Your task to perform on an android device: Go to Reddit.com Image 0: 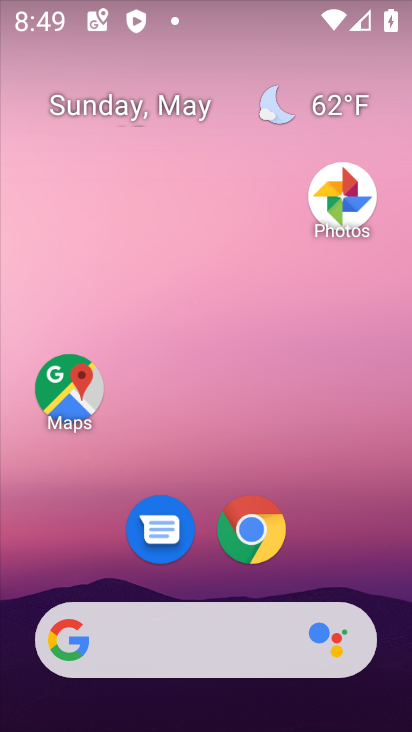
Step 0: drag from (322, 561) to (292, 102)
Your task to perform on an android device: Go to Reddit.com Image 1: 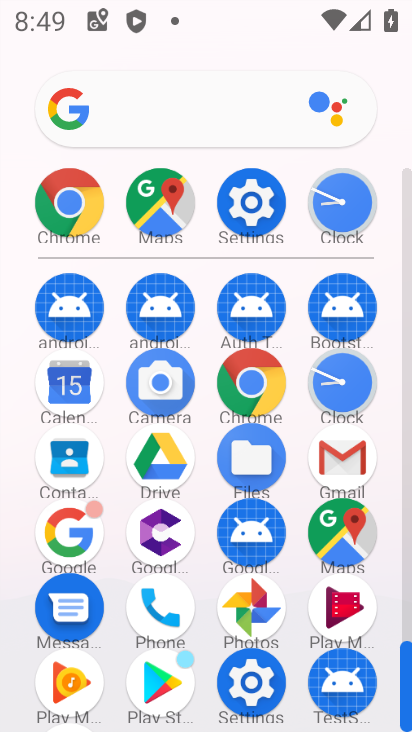
Step 1: click (267, 402)
Your task to perform on an android device: Go to Reddit.com Image 2: 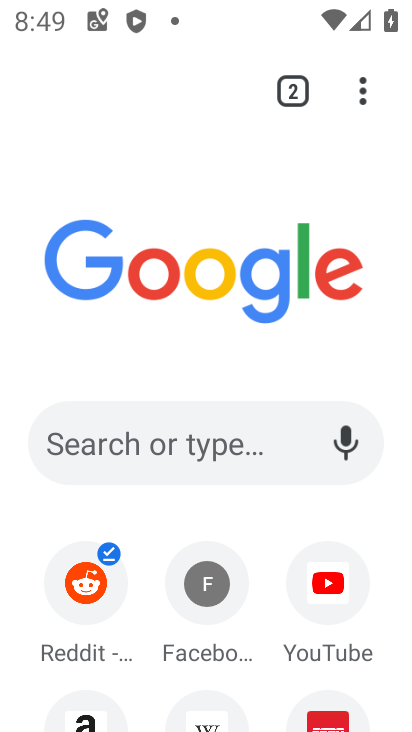
Step 2: click (80, 587)
Your task to perform on an android device: Go to Reddit.com Image 3: 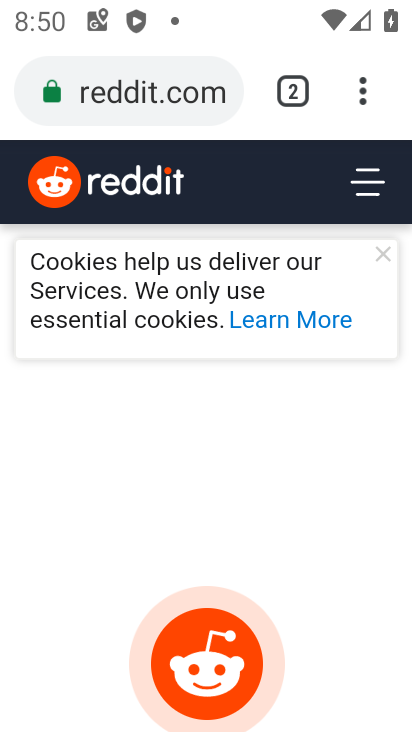
Step 3: task complete